Your task to perform on an android device: Go to internet settings Image 0: 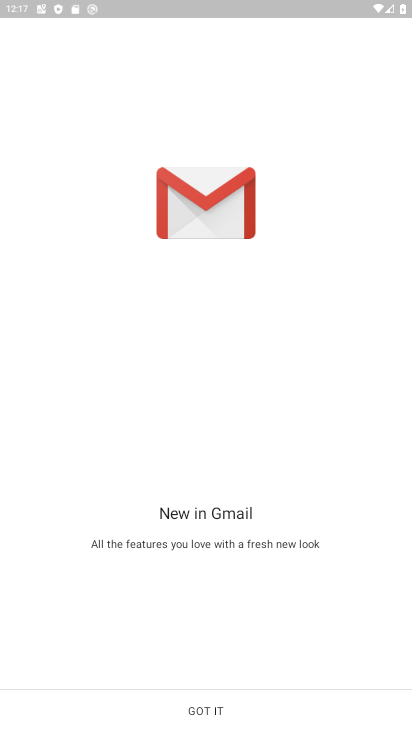
Step 0: press back button
Your task to perform on an android device: Go to internet settings Image 1: 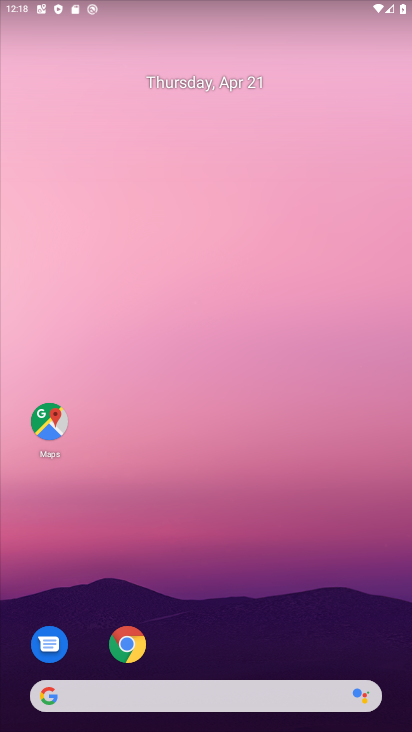
Step 1: drag from (223, 636) to (302, 56)
Your task to perform on an android device: Go to internet settings Image 2: 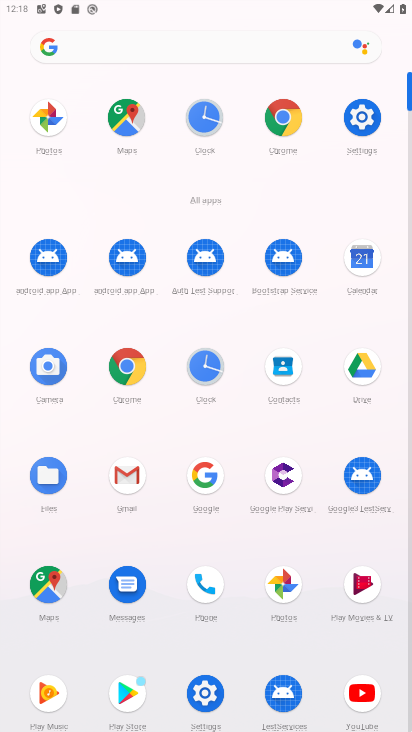
Step 2: click (360, 108)
Your task to perform on an android device: Go to internet settings Image 3: 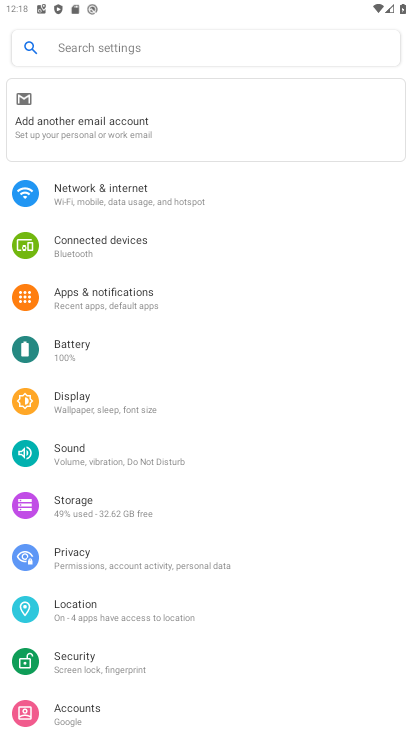
Step 3: click (137, 199)
Your task to perform on an android device: Go to internet settings Image 4: 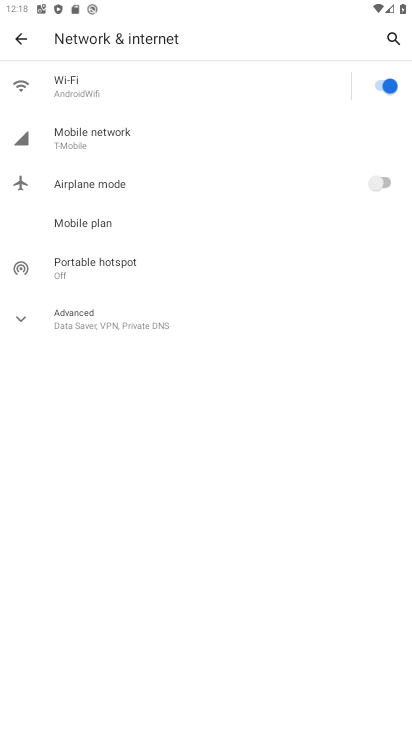
Step 4: task complete